Your task to perform on an android device: Search for pizza restaurants on Maps Image 0: 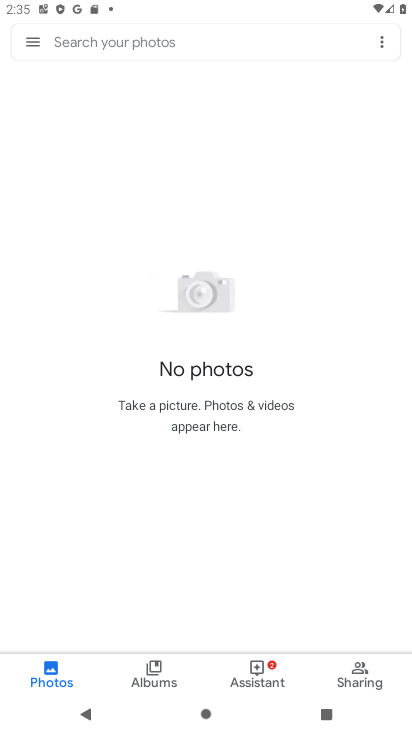
Step 0: press home button
Your task to perform on an android device: Search for pizza restaurants on Maps Image 1: 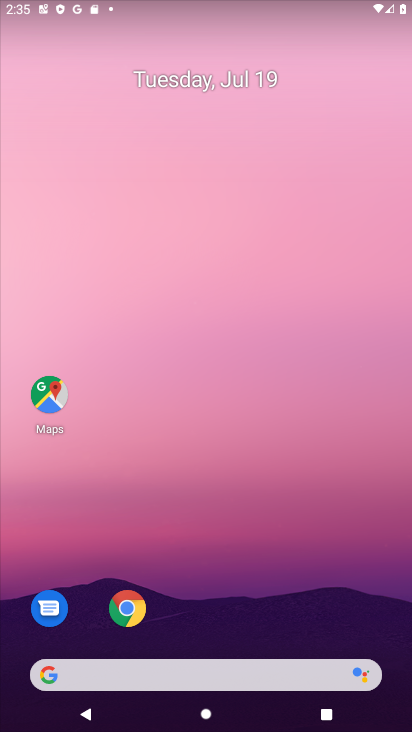
Step 1: drag from (242, 591) to (219, 153)
Your task to perform on an android device: Search for pizza restaurants on Maps Image 2: 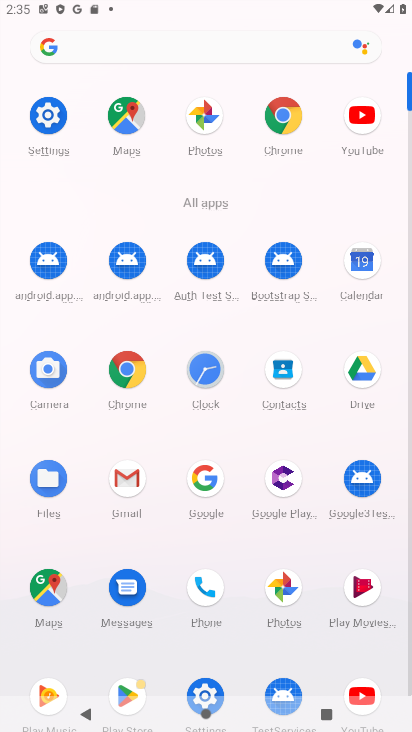
Step 2: click (123, 117)
Your task to perform on an android device: Search for pizza restaurants on Maps Image 3: 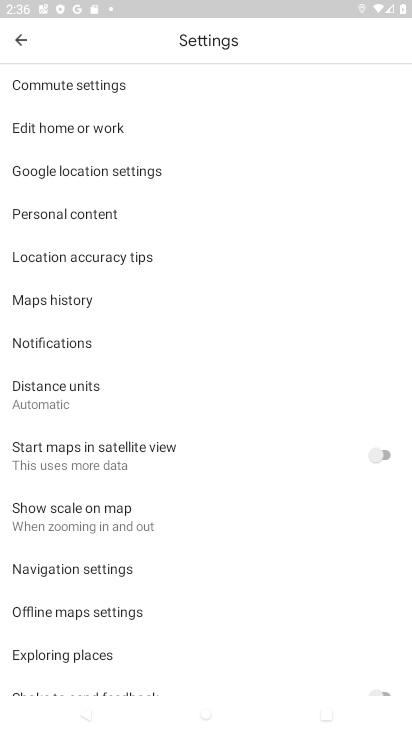
Step 3: press back button
Your task to perform on an android device: Search for pizza restaurants on Maps Image 4: 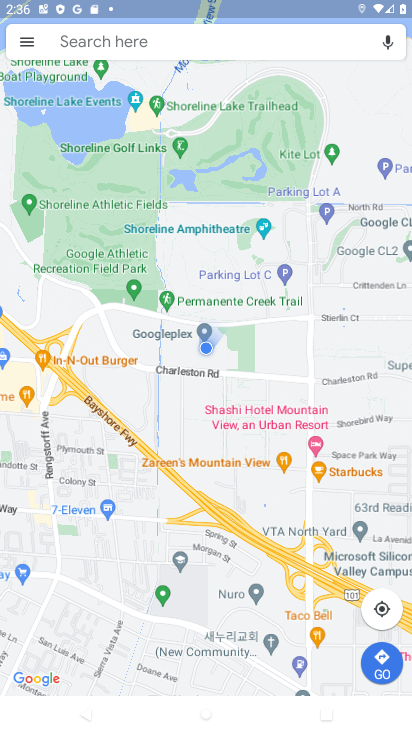
Step 4: click (126, 40)
Your task to perform on an android device: Search for pizza restaurants on Maps Image 5: 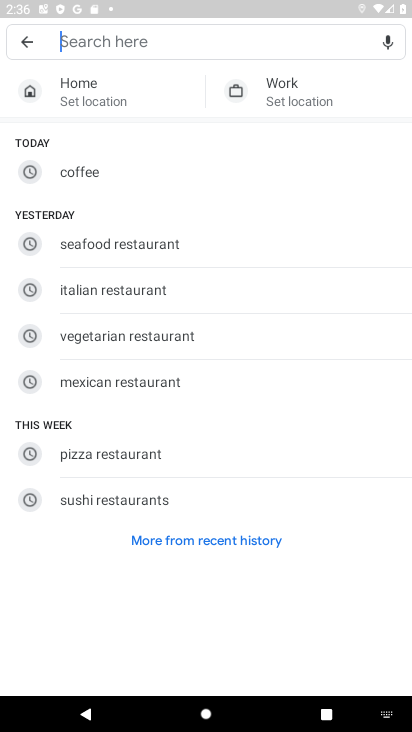
Step 5: type "pizza restaurants"
Your task to perform on an android device: Search for pizza restaurants on Maps Image 6: 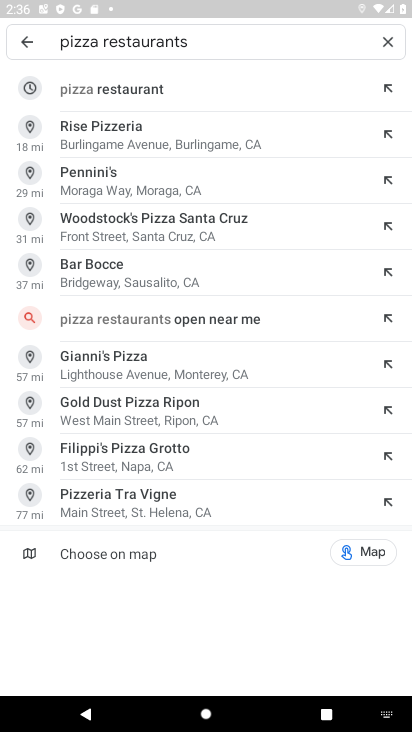
Step 6: press enter
Your task to perform on an android device: Search for pizza restaurants on Maps Image 7: 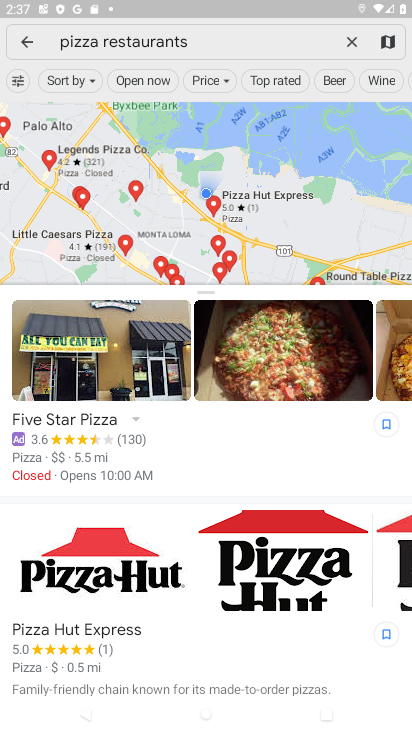
Step 7: task complete